Your task to perform on an android device: Go to sound settings Image 0: 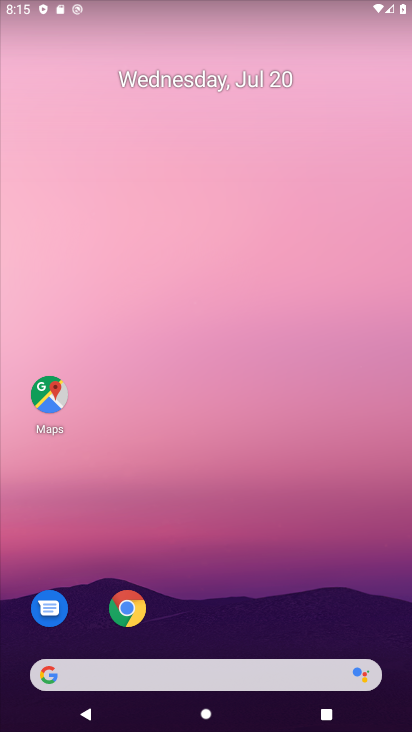
Step 0: drag from (269, 611) to (257, 71)
Your task to perform on an android device: Go to sound settings Image 1: 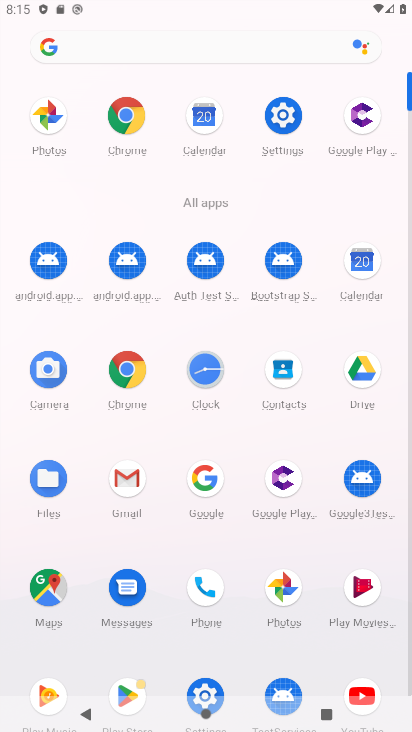
Step 1: click (278, 119)
Your task to perform on an android device: Go to sound settings Image 2: 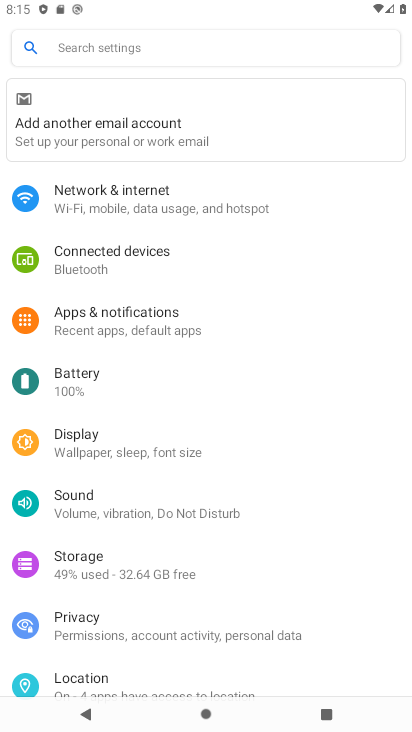
Step 2: click (130, 507)
Your task to perform on an android device: Go to sound settings Image 3: 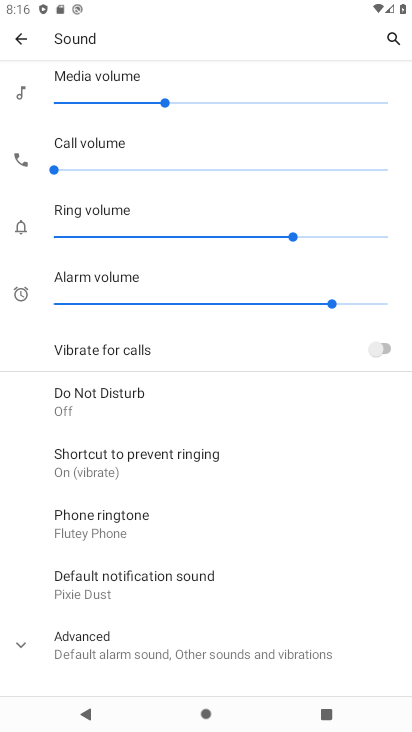
Step 3: task complete